Your task to perform on an android device: turn on the 24-hour format for clock Image 0: 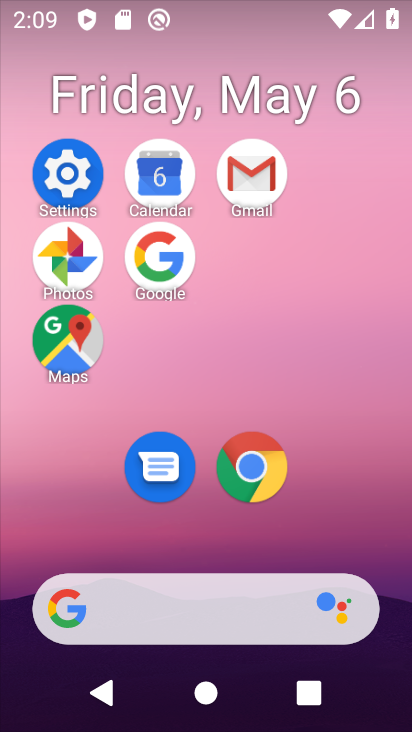
Step 0: drag from (305, 553) to (297, 126)
Your task to perform on an android device: turn on the 24-hour format for clock Image 1: 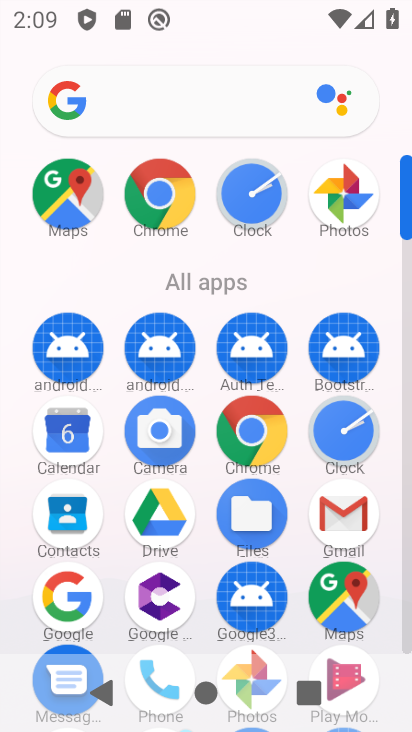
Step 1: drag from (346, 440) to (248, 284)
Your task to perform on an android device: turn on the 24-hour format for clock Image 2: 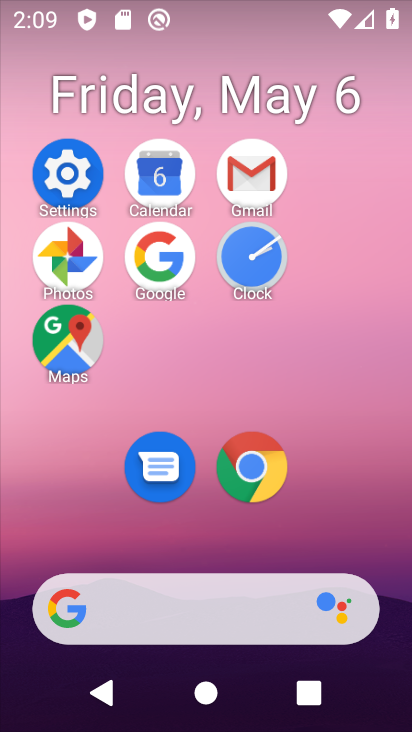
Step 2: click (251, 272)
Your task to perform on an android device: turn on the 24-hour format for clock Image 3: 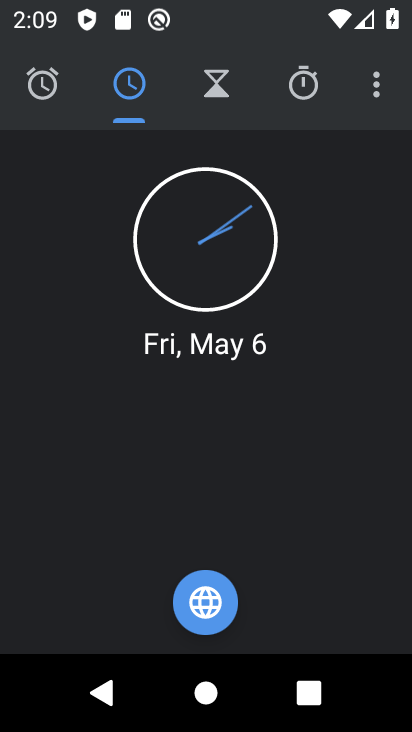
Step 3: click (369, 78)
Your task to perform on an android device: turn on the 24-hour format for clock Image 4: 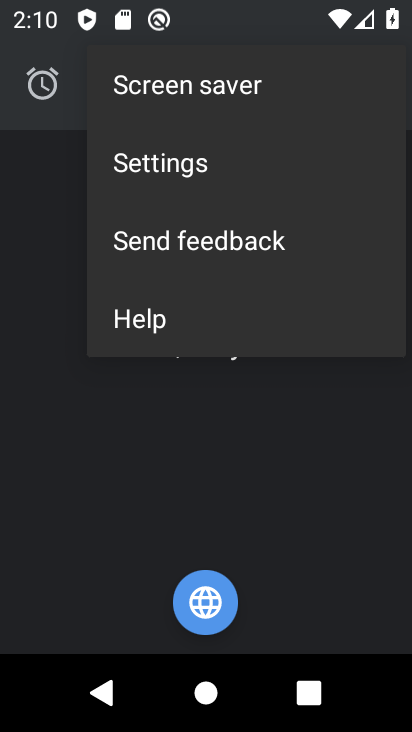
Step 4: click (168, 168)
Your task to perform on an android device: turn on the 24-hour format for clock Image 5: 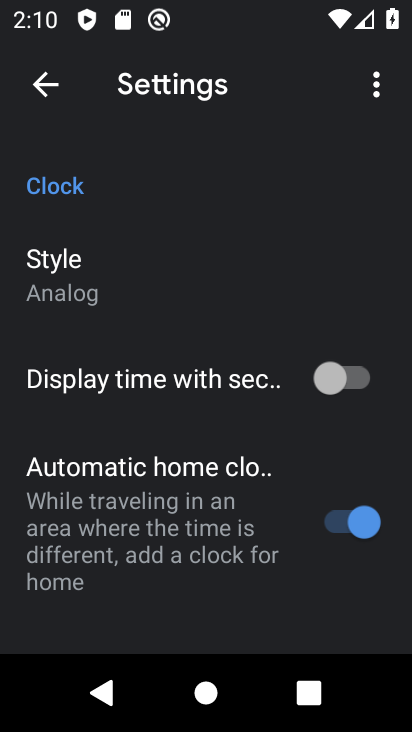
Step 5: drag from (190, 562) to (200, 217)
Your task to perform on an android device: turn on the 24-hour format for clock Image 6: 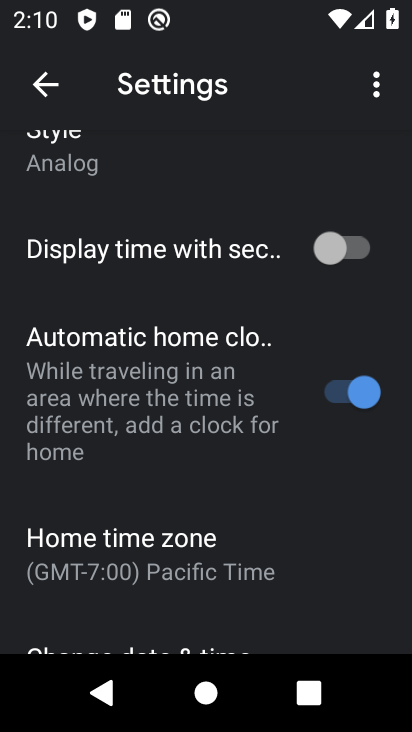
Step 6: drag from (106, 485) to (109, 143)
Your task to perform on an android device: turn on the 24-hour format for clock Image 7: 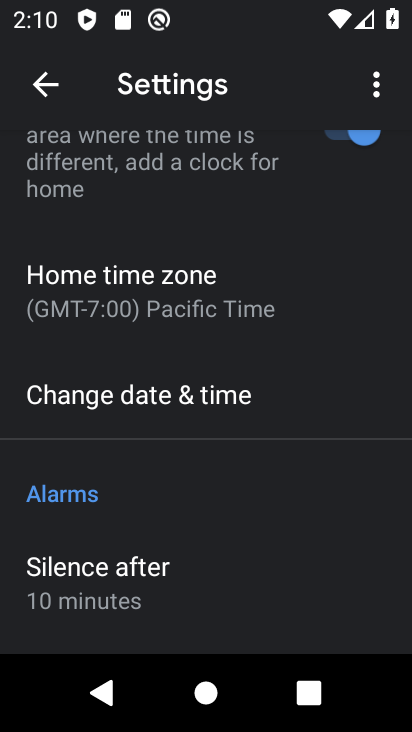
Step 7: drag from (185, 512) to (177, 203)
Your task to perform on an android device: turn on the 24-hour format for clock Image 8: 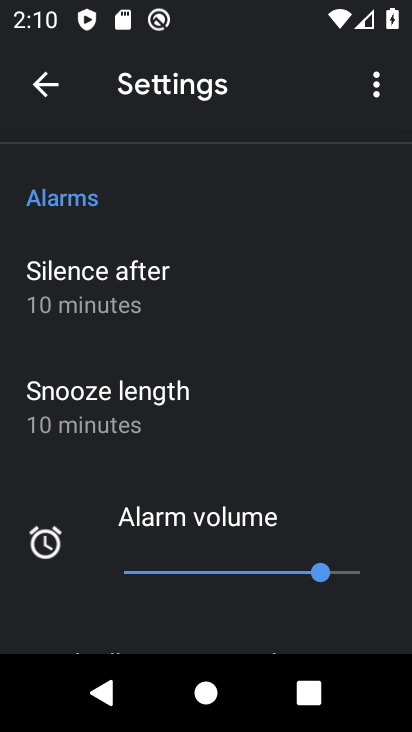
Step 8: drag from (177, 202) to (214, 448)
Your task to perform on an android device: turn on the 24-hour format for clock Image 9: 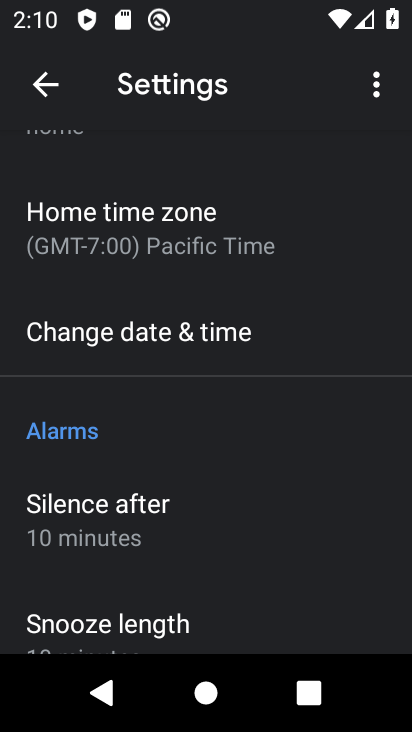
Step 9: click (211, 350)
Your task to perform on an android device: turn on the 24-hour format for clock Image 10: 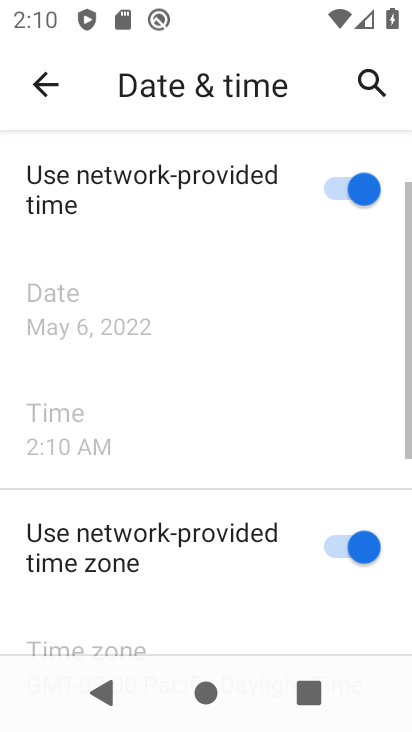
Step 10: drag from (255, 503) to (263, 252)
Your task to perform on an android device: turn on the 24-hour format for clock Image 11: 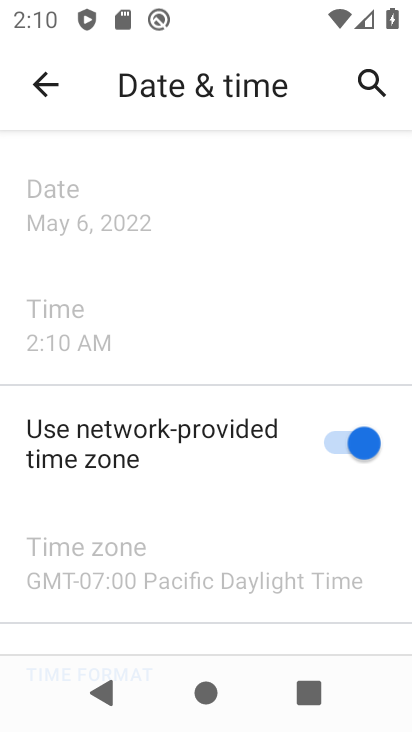
Step 11: drag from (231, 554) to (207, 83)
Your task to perform on an android device: turn on the 24-hour format for clock Image 12: 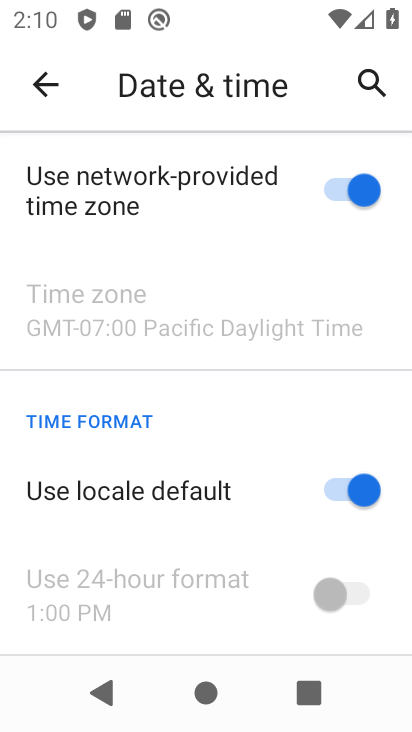
Step 12: click (368, 508)
Your task to perform on an android device: turn on the 24-hour format for clock Image 13: 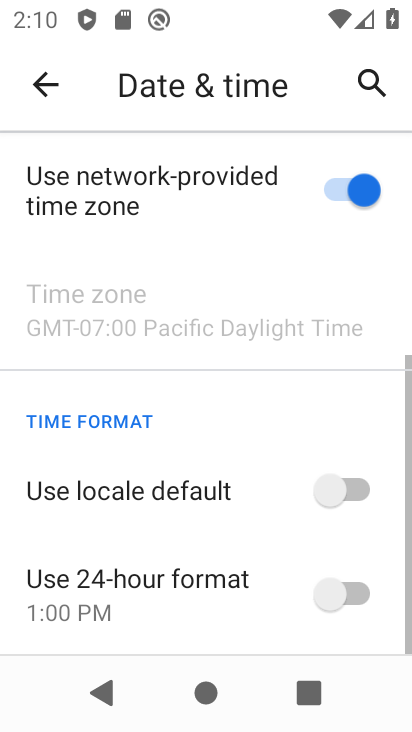
Step 13: click (340, 580)
Your task to perform on an android device: turn on the 24-hour format for clock Image 14: 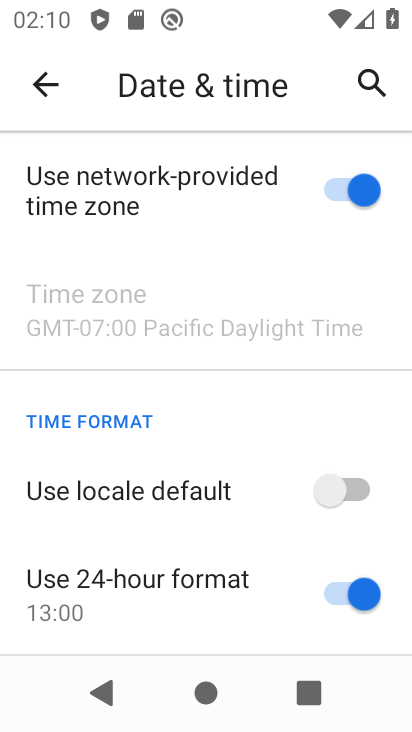
Step 14: task complete